Your task to perform on an android device: Open the calendar app, open the side menu, and click the "Day" option Image 0: 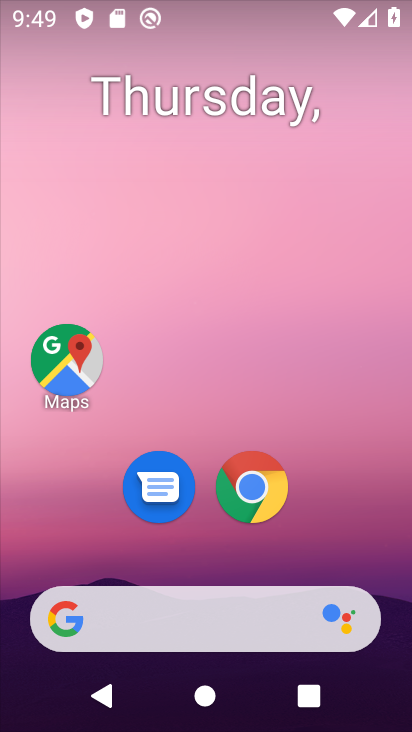
Step 0: drag from (321, 484) to (111, 165)
Your task to perform on an android device: Open the calendar app, open the side menu, and click the "Day" option Image 1: 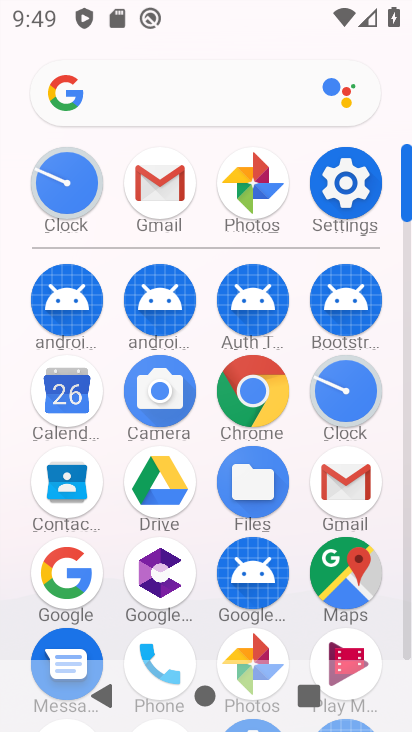
Step 1: click (71, 394)
Your task to perform on an android device: Open the calendar app, open the side menu, and click the "Day" option Image 2: 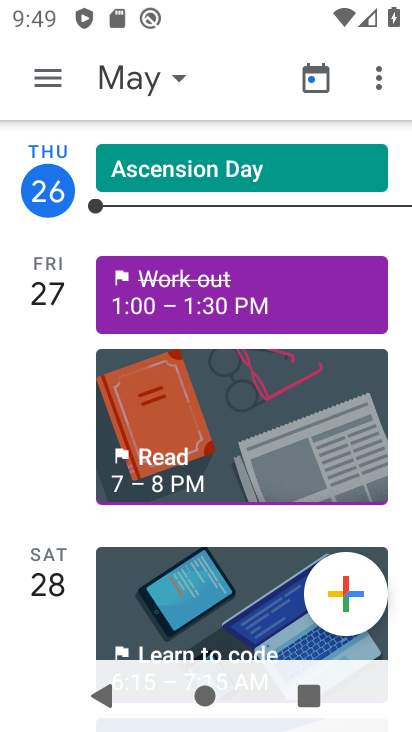
Step 2: click (43, 78)
Your task to perform on an android device: Open the calendar app, open the side menu, and click the "Day" option Image 3: 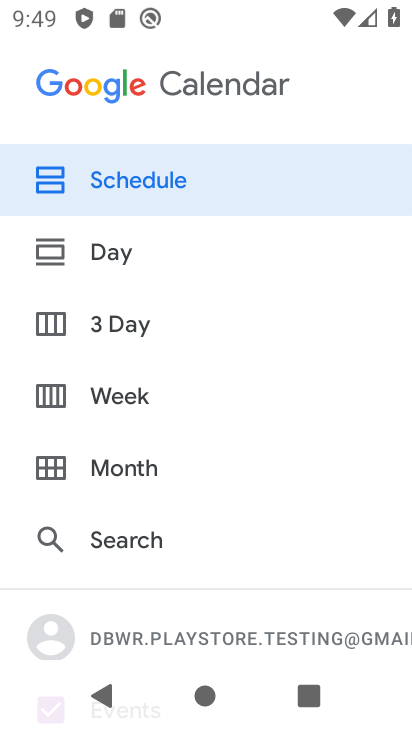
Step 3: click (75, 252)
Your task to perform on an android device: Open the calendar app, open the side menu, and click the "Day" option Image 4: 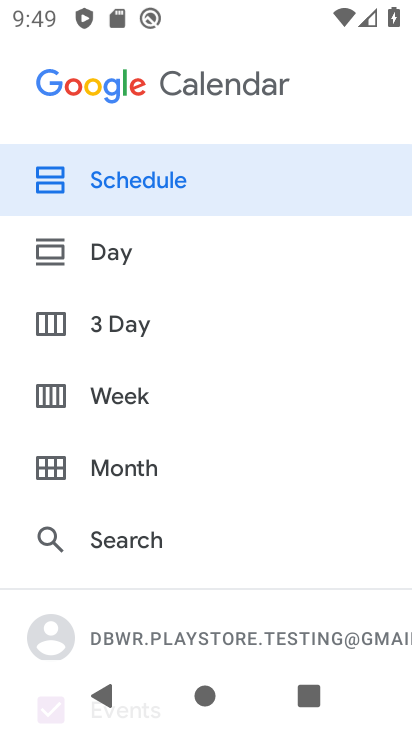
Step 4: click (110, 255)
Your task to perform on an android device: Open the calendar app, open the side menu, and click the "Day" option Image 5: 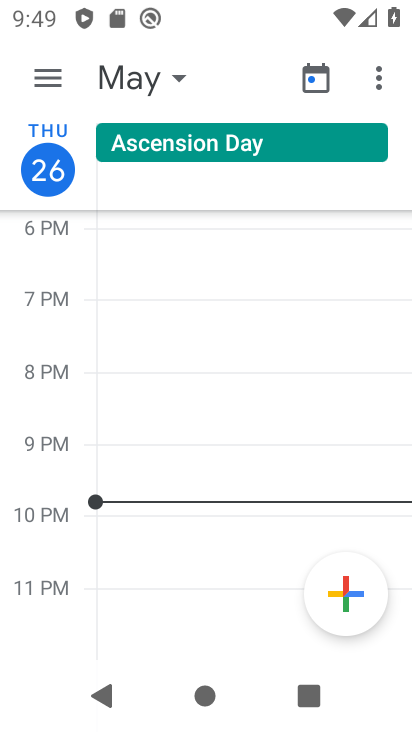
Step 5: click (41, 85)
Your task to perform on an android device: Open the calendar app, open the side menu, and click the "Day" option Image 6: 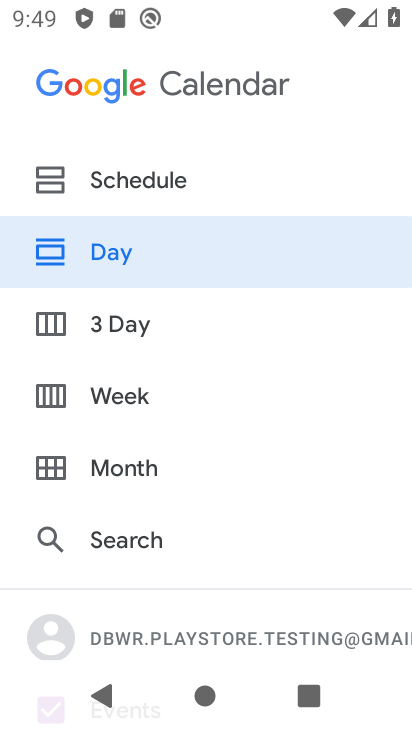
Step 6: task complete